Your task to perform on an android device: Open network settings Image 0: 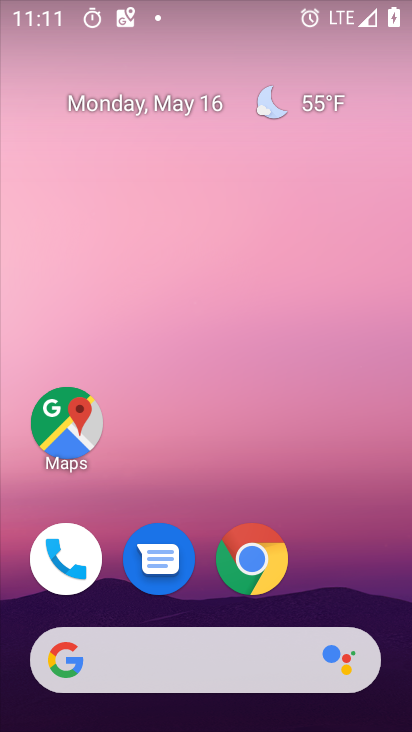
Step 0: drag from (356, 526) to (268, 58)
Your task to perform on an android device: Open network settings Image 1: 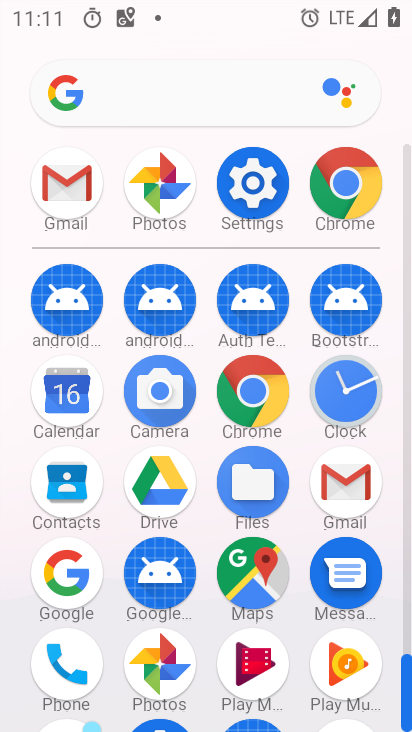
Step 1: click (255, 178)
Your task to perform on an android device: Open network settings Image 2: 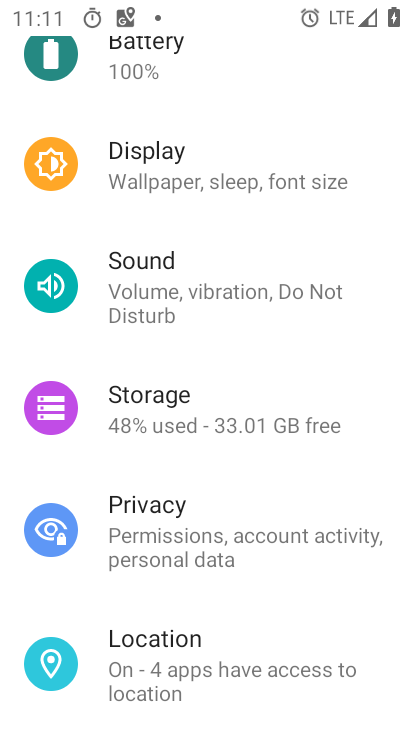
Step 2: drag from (254, 519) to (273, 679)
Your task to perform on an android device: Open network settings Image 3: 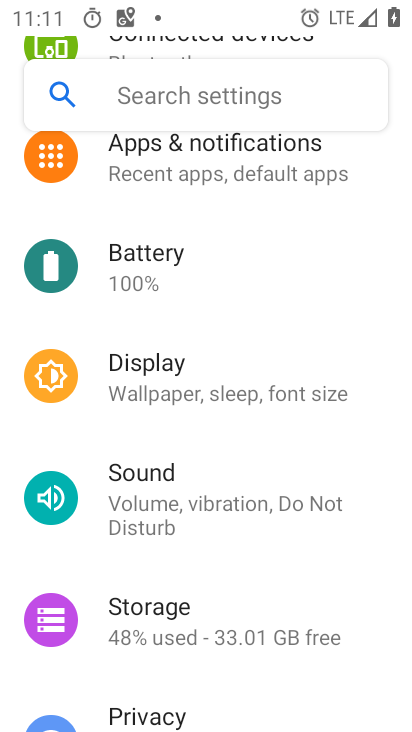
Step 3: drag from (196, 171) to (248, 647)
Your task to perform on an android device: Open network settings Image 4: 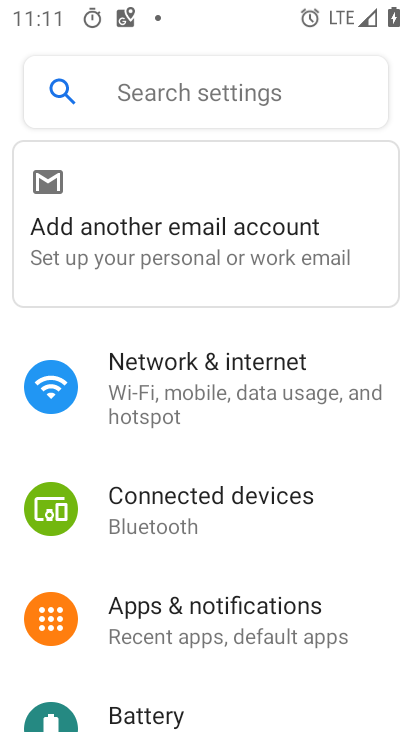
Step 4: click (173, 376)
Your task to perform on an android device: Open network settings Image 5: 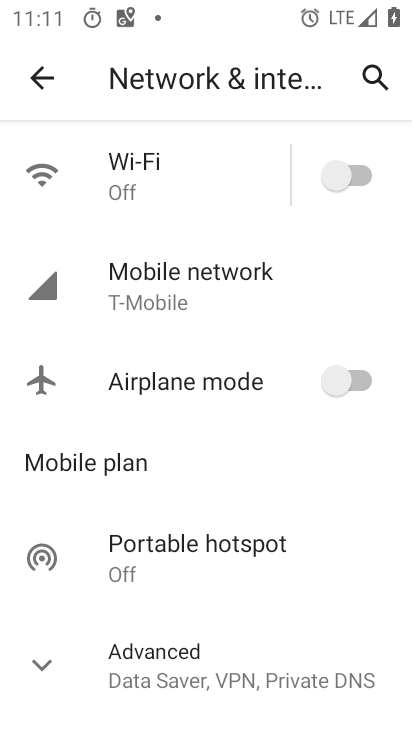
Step 5: click (224, 182)
Your task to perform on an android device: Open network settings Image 6: 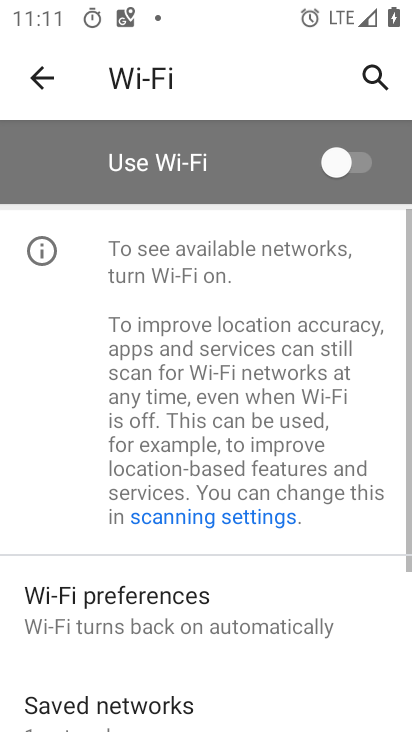
Step 6: click (371, 162)
Your task to perform on an android device: Open network settings Image 7: 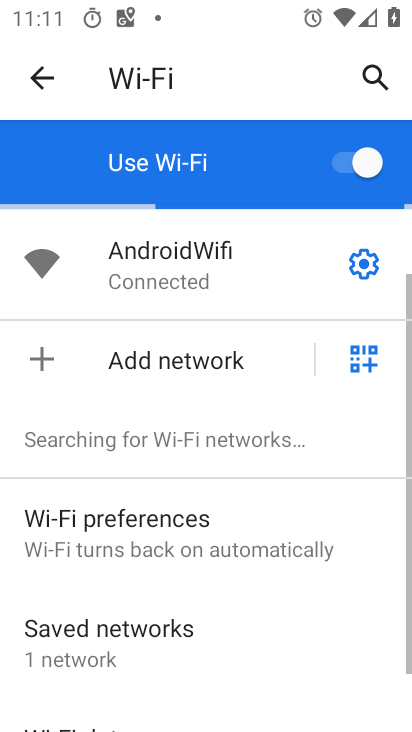
Step 7: click (367, 255)
Your task to perform on an android device: Open network settings Image 8: 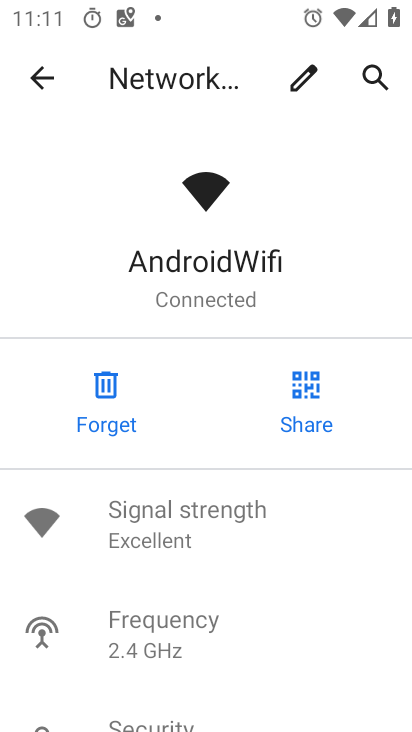
Step 8: task complete